Your task to perform on an android device: add a contact Image 0: 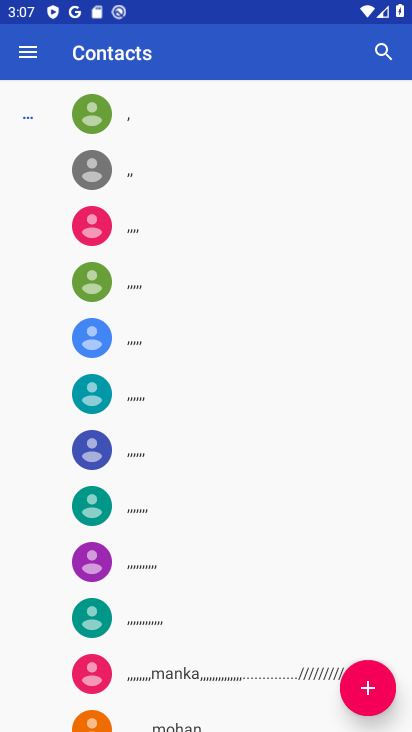
Step 0: press home button
Your task to perform on an android device: add a contact Image 1: 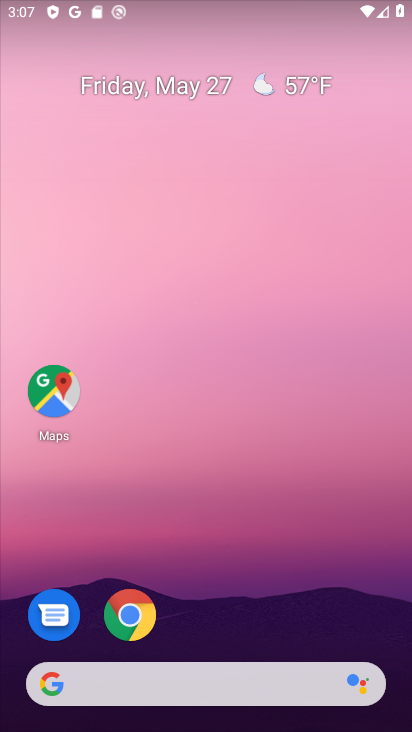
Step 1: drag from (249, 636) to (347, 222)
Your task to perform on an android device: add a contact Image 2: 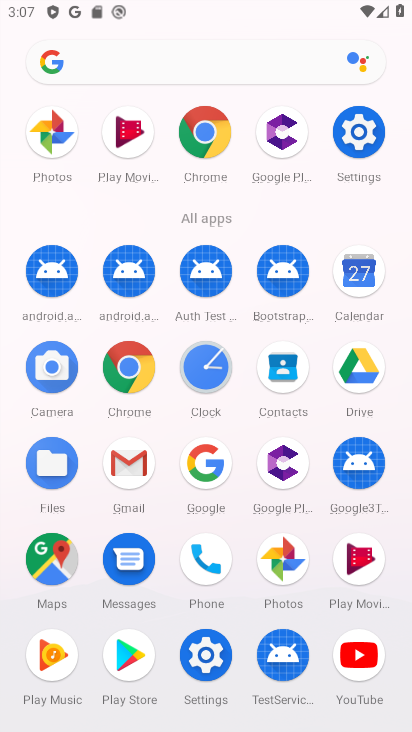
Step 2: drag from (259, 592) to (273, 179)
Your task to perform on an android device: add a contact Image 3: 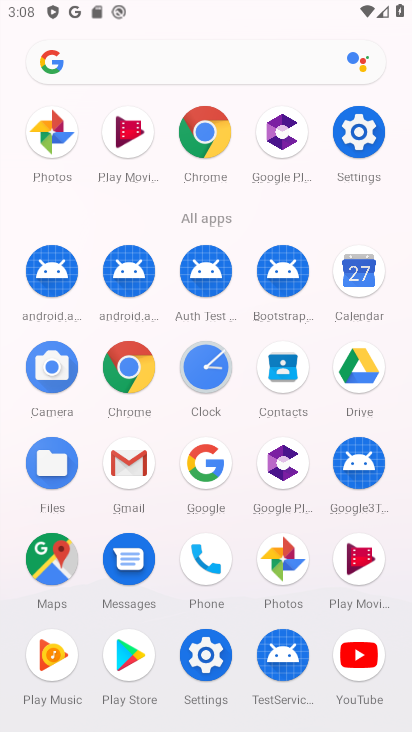
Step 3: click (267, 395)
Your task to perform on an android device: add a contact Image 4: 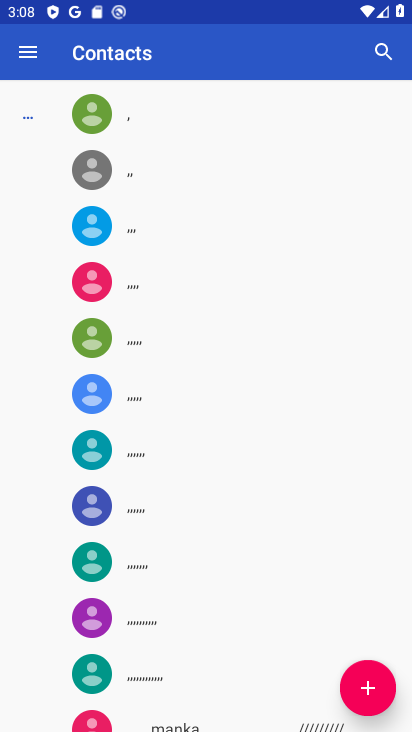
Step 4: click (356, 699)
Your task to perform on an android device: add a contact Image 5: 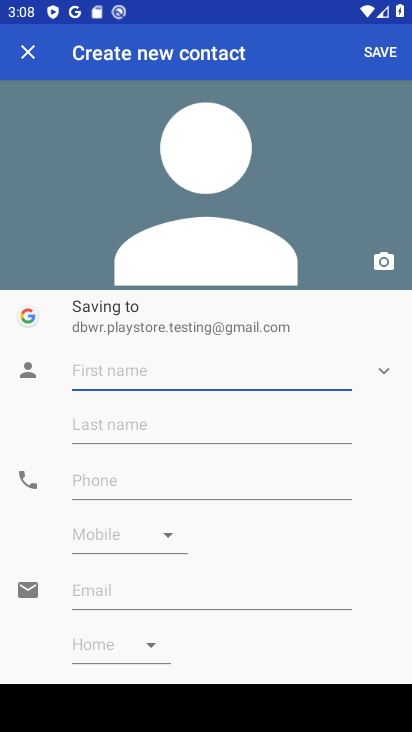
Step 5: type "Rachana"
Your task to perform on an android device: add a contact Image 6: 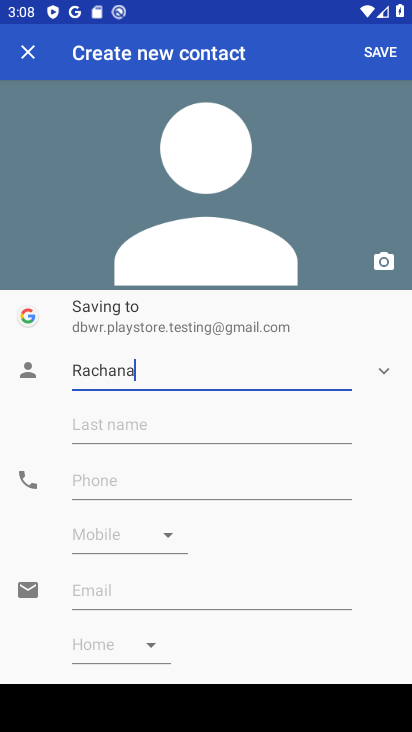
Step 6: click (213, 433)
Your task to perform on an android device: add a contact Image 7: 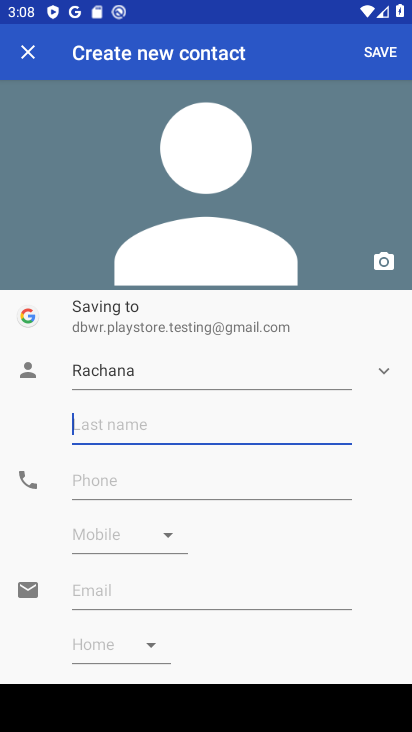
Step 7: type "Pandit"
Your task to perform on an android device: add a contact Image 8: 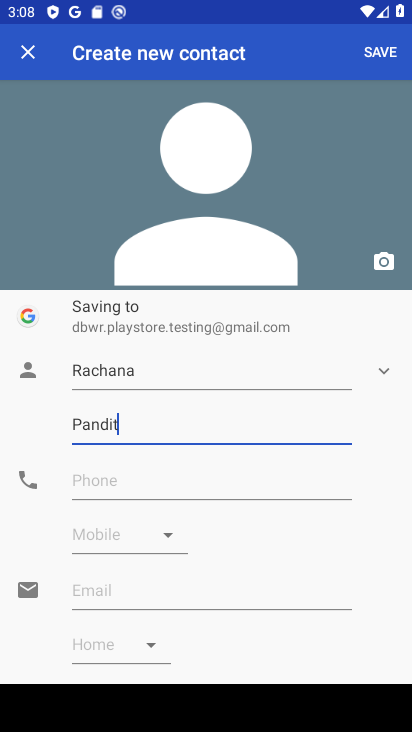
Step 8: click (283, 484)
Your task to perform on an android device: add a contact Image 9: 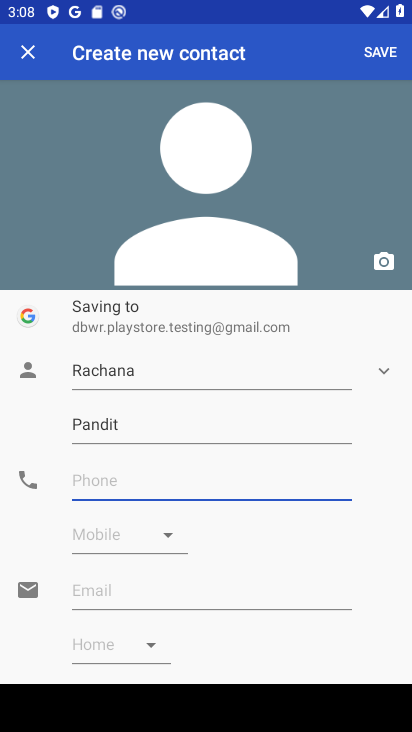
Step 9: type "9090090990"
Your task to perform on an android device: add a contact Image 10: 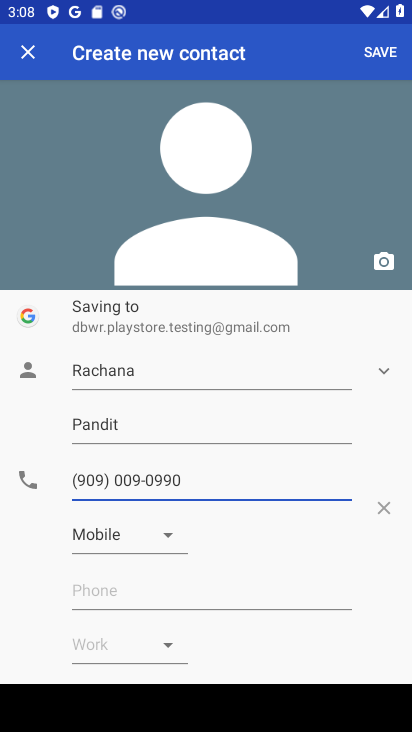
Step 10: click (376, 59)
Your task to perform on an android device: add a contact Image 11: 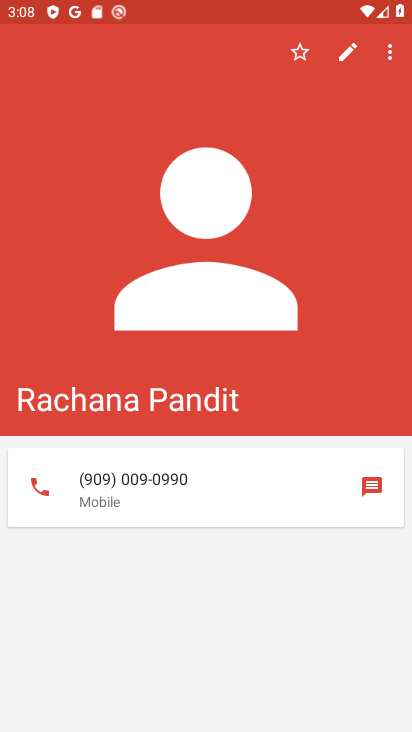
Step 11: task complete